Your task to perform on an android device: open a bookmark in the chrome app Image 0: 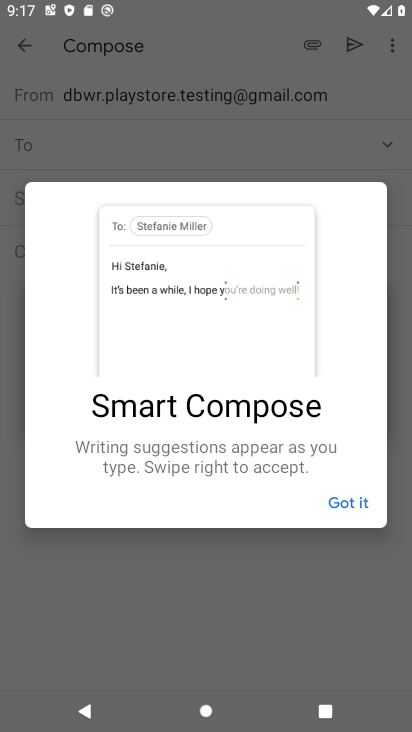
Step 0: press home button
Your task to perform on an android device: open a bookmark in the chrome app Image 1: 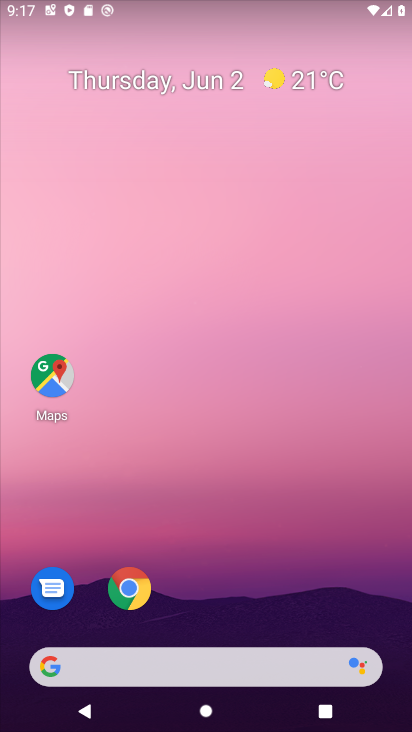
Step 1: click (139, 588)
Your task to perform on an android device: open a bookmark in the chrome app Image 2: 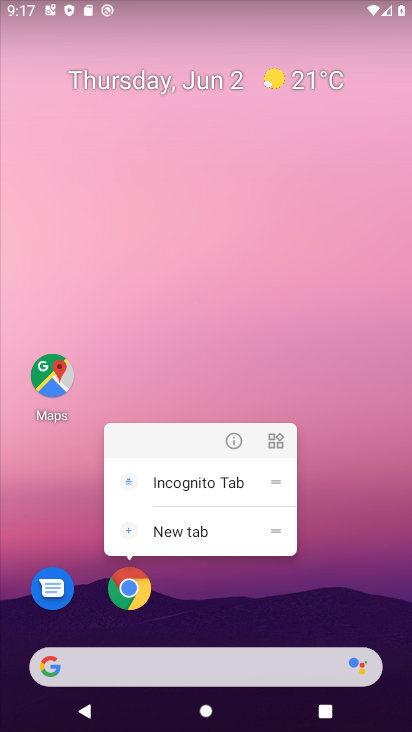
Step 2: click (139, 588)
Your task to perform on an android device: open a bookmark in the chrome app Image 3: 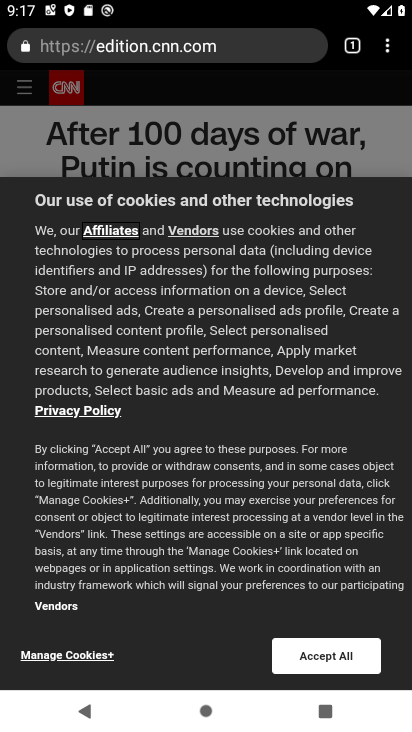
Step 3: drag from (380, 37) to (259, 180)
Your task to perform on an android device: open a bookmark in the chrome app Image 4: 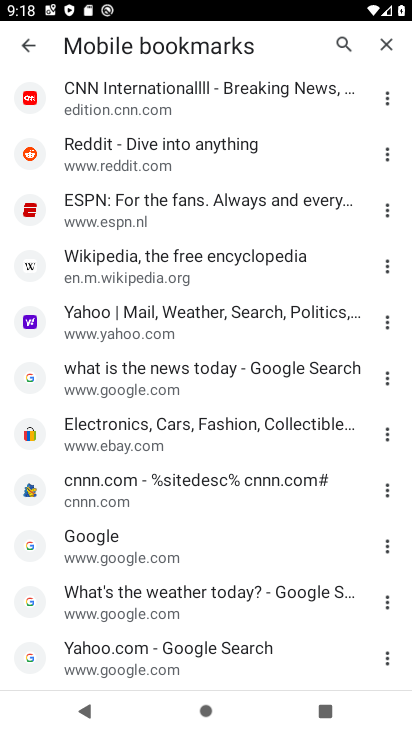
Step 4: click (156, 268)
Your task to perform on an android device: open a bookmark in the chrome app Image 5: 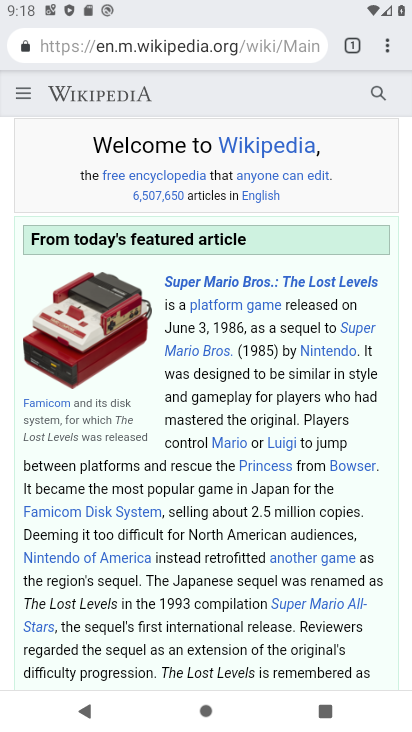
Step 5: task complete